Your task to perform on an android device: open wifi settings Image 0: 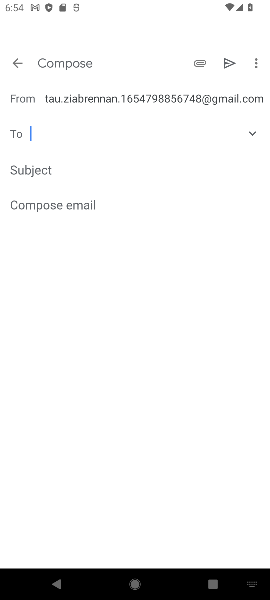
Step 0: press home button
Your task to perform on an android device: open wifi settings Image 1: 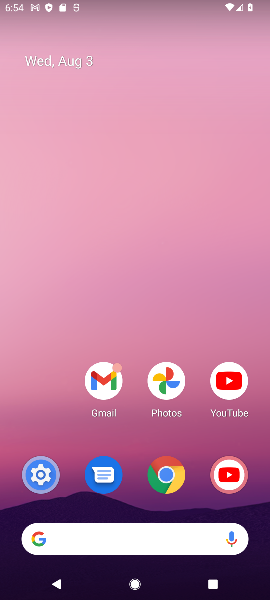
Step 1: click (36, 475)
Your task to perform on an android device: open wifi settings Image 2: 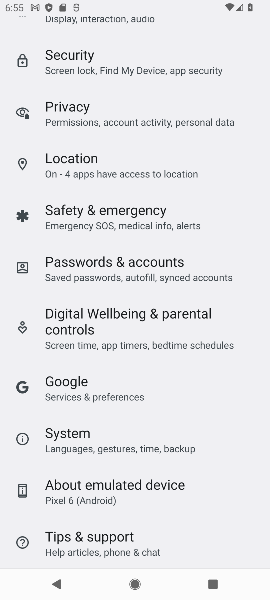
Step 2: drag from (119, 116) to (256, 454)
Your task to perform on an android device: open wifi settings Image 3: 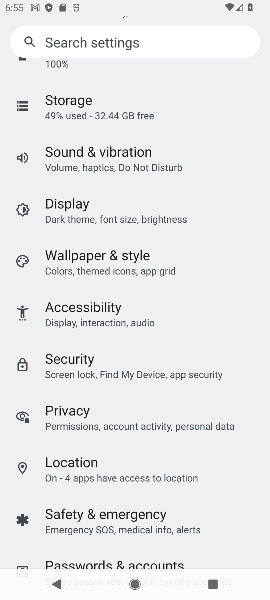
Step 3: drag from (146, 133) to (267, 526)
Your task to perform on an android device: open wifi settings Image 4: 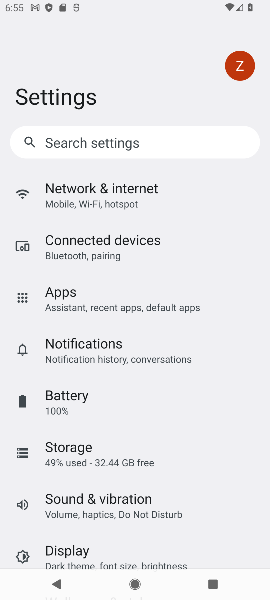
Step 4: click (97, 194)
Your task to perform on an android device: open wifi settings Image 5: 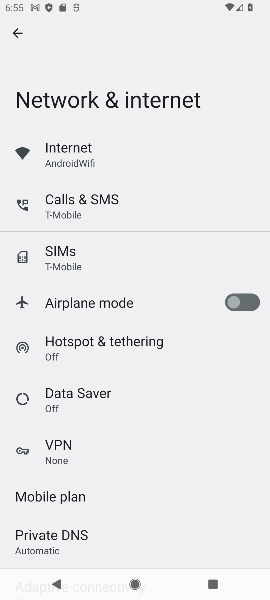
Step 5: click (82, 153)
Your task to perform on an android device: open wifi settings Image 6: 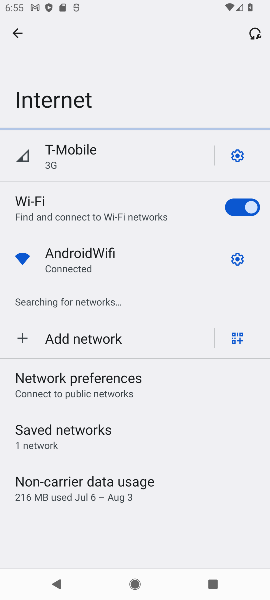
Step 6: task complete